Your task to perform on an android device: Open Amazon Image 0: 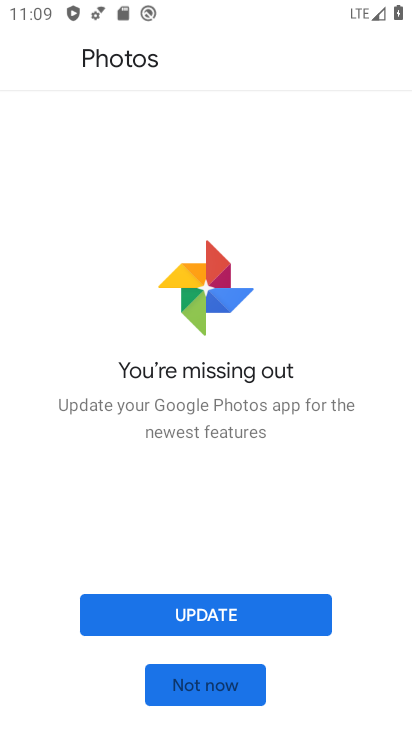
Step 0: press home button
Your task to perform on an android device: Open Amazon Image 1: 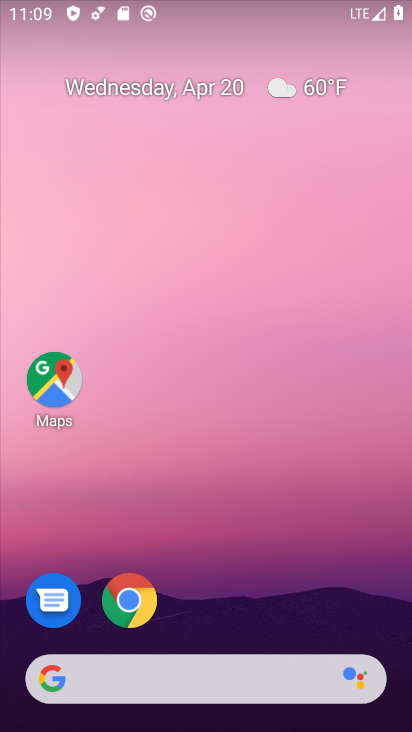
Step 1: drag from (194, 590) to (204, 105)
Your task to perform on an android device: Open Amazon Image 2: 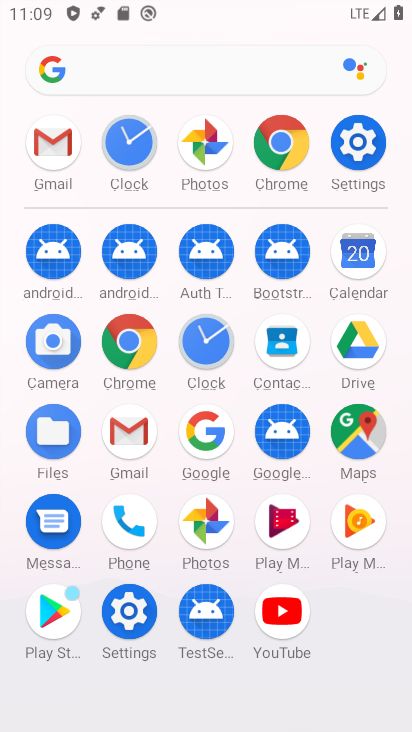
Step 2: click (136, 343)
Your task to perform on an android device: Open Amazon Image 3: 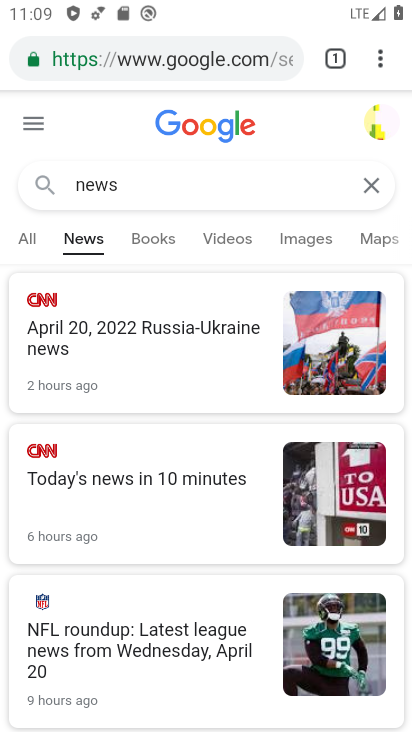
Step 3: click (169, 181)
Your task to perform on an android device: Open Amazon Image 4: 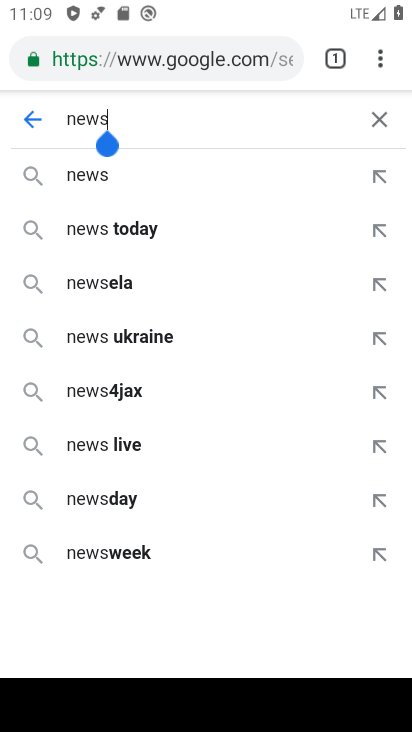
Step 4: click (378, 124)
Your task to perform on an android device: Open Amazon Image 5: 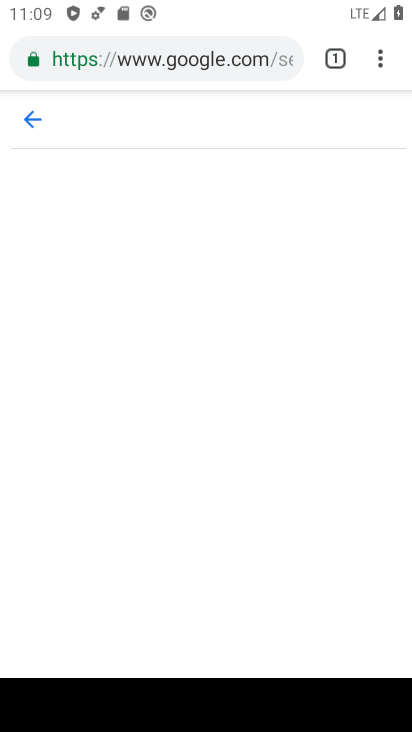
Step 5: type "amazone"
Your task to perform on an android device: Open Amazon Image 6: 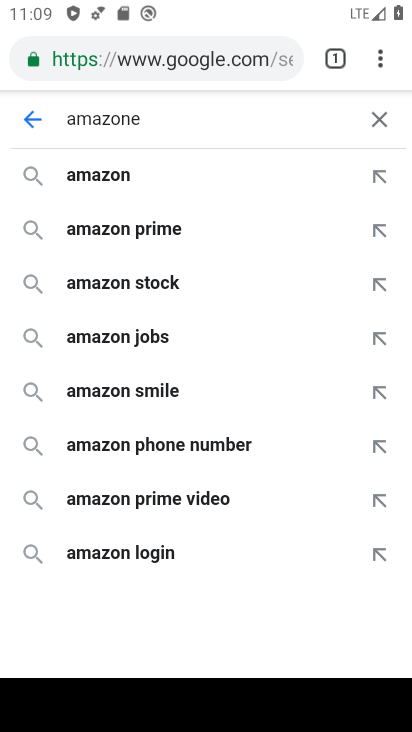
Step 6: click (127, 171)
Your task to perform on an android device: Open Amazon Image 7: 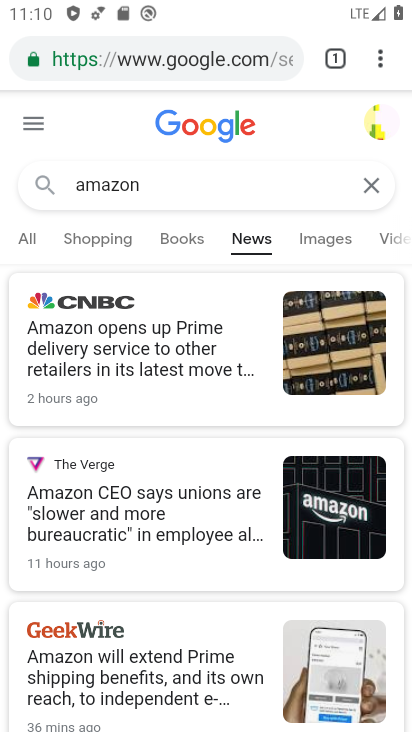
Step 7: click (34, 244)
Your task to perform on an android device: Open Amazon Image 8: 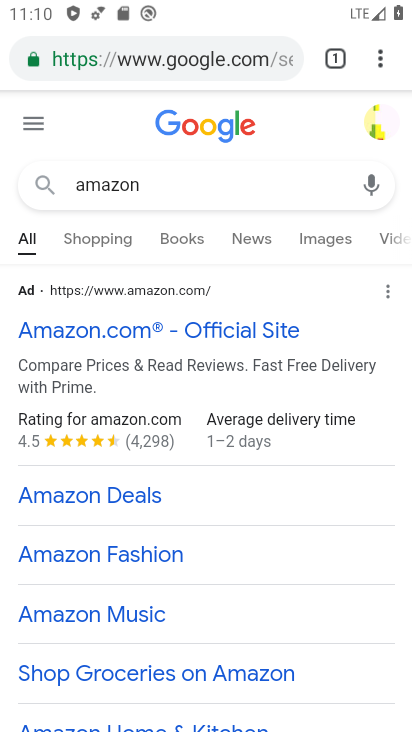
Step 8: click (155, 324)
Your task to perform on an android device: Open Amazon Image 9: 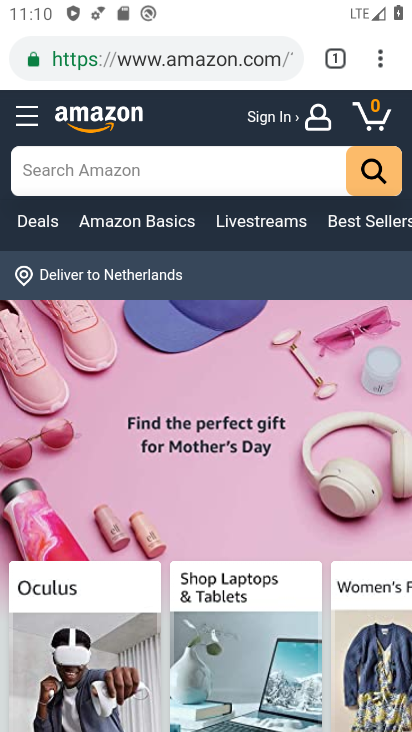
Step 9: task complete